Your task to perform on an android device: turn off notifications in google photos Image 0: 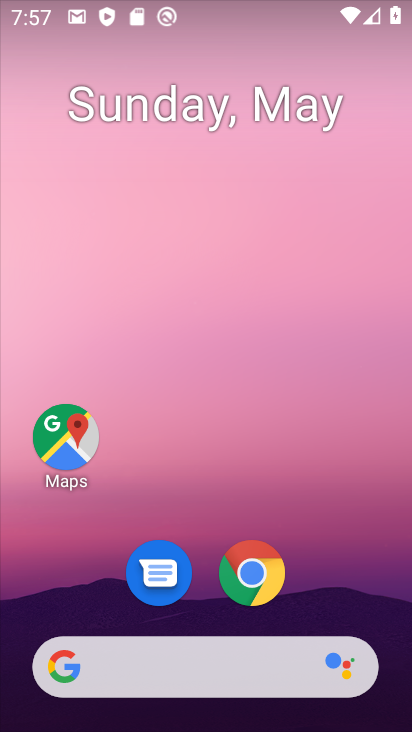
Step 0: drag from (206, 525) to (244, 0)
Your task to perform on an android device: turn off notifications in google photos Image 1: 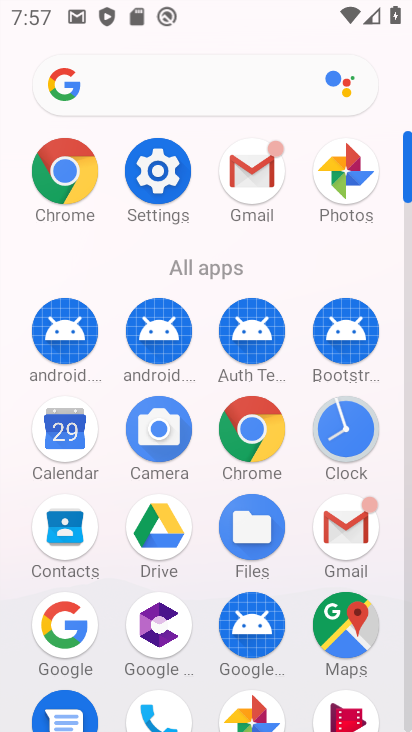
Step 1: click (167, 175)
Your task to perform on an android device: turn off notifications in google photos Image 2: 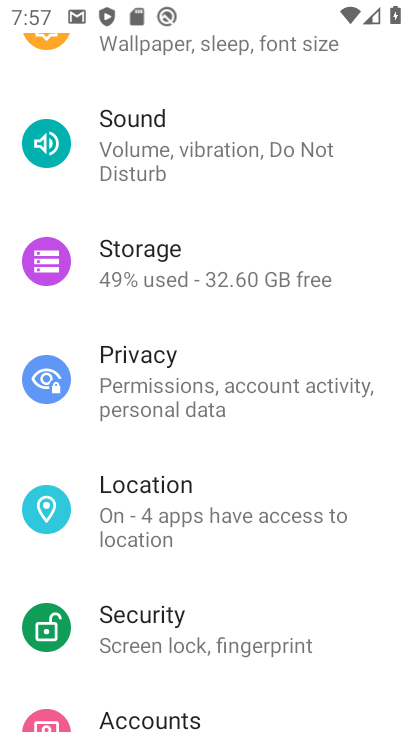
Step 2: drag from (242, 225) to (274, 709)
Your task to perform on an android device: turn off notifications in google photos Image 3: 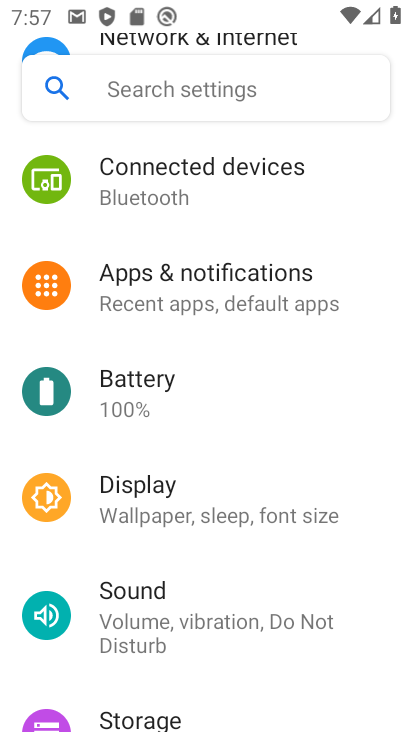
Step 3: click (250, 285)
Your task to perform on an android device: turn off notifications in google photos Image 4: 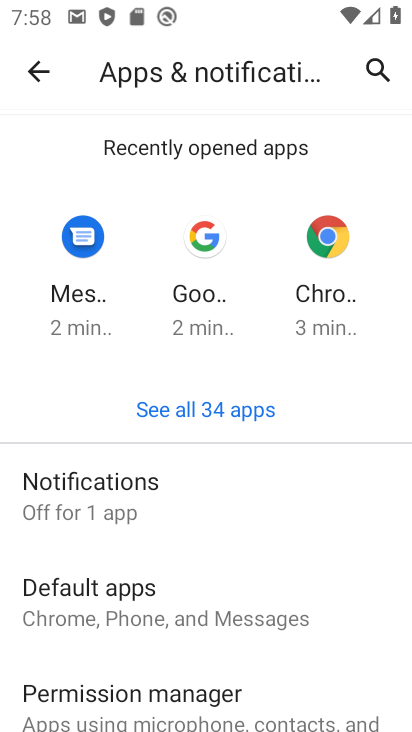
Step 4: click (235, 407)
Your task to perform on an android device: turn off notifications in google photos Image 5: 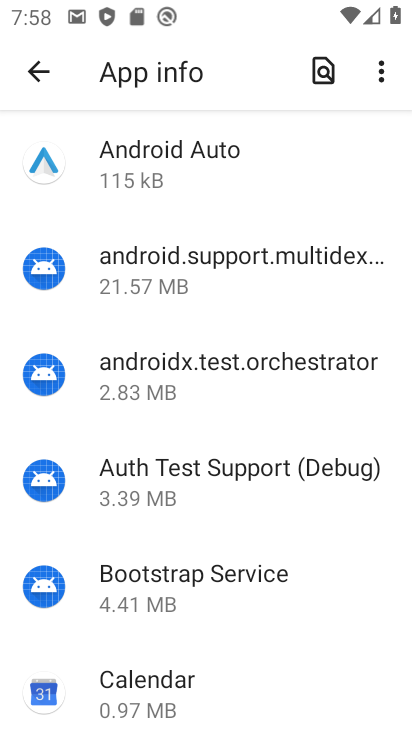
Step 5: drag from (263, 685) to (251, 10)
Your task to perform on an android device: turn off notifications in google photos Image 6: 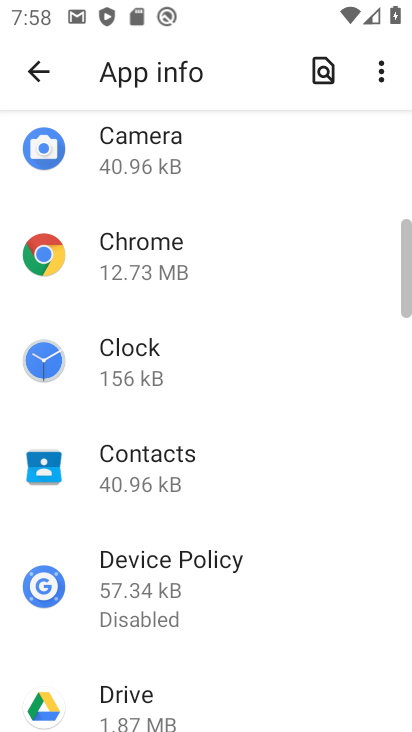
Step 6: drag from (268, 711) to (269, 5)
Your task to perform on an android device: turn off notifications in google photos Image 7: 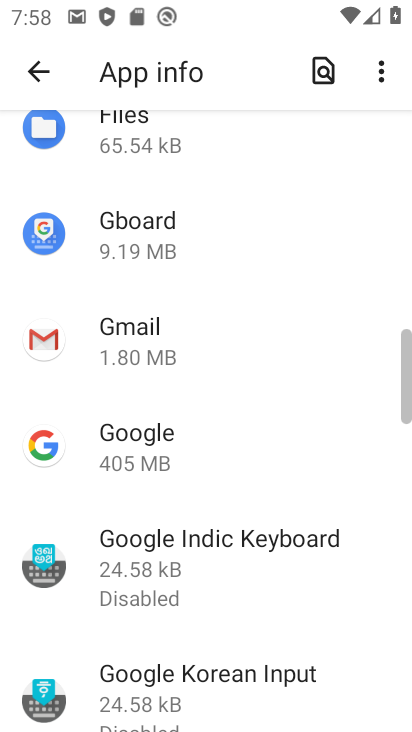
Step 7: drag from (263, 651) to (250, 104)
Your task to perform on an android device: turn off notifications in google photos Image 8: 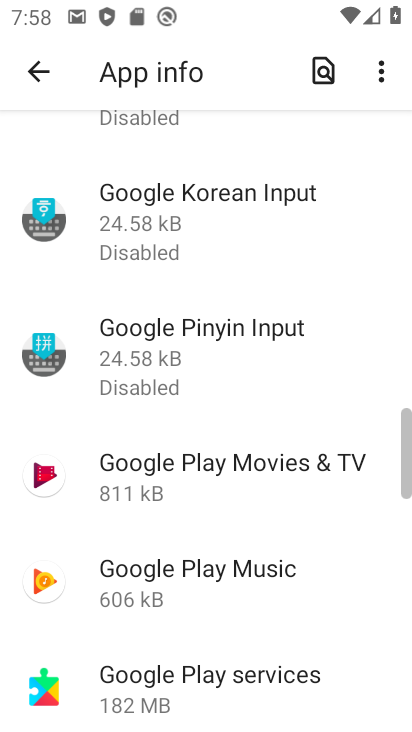
Step 8: drag from (244, 619) to (224, 139)
Your task to perform on an android device: turn off notifications in google photos Image 9: 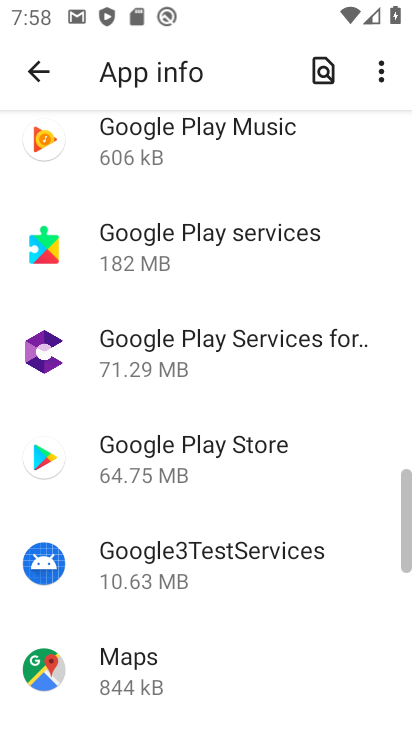
Step 9: drag from (231, 611) to (263, 212)
Your task to perform on an android device: turn off notifications in google photos Image 10: 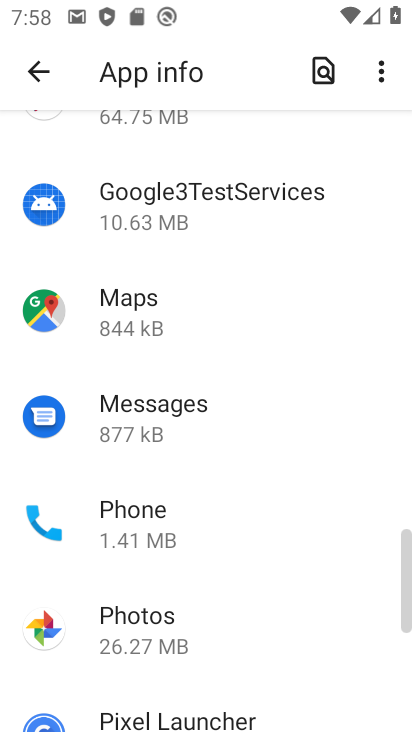
Step 10: click (155, 622)
Your task to perform on an android device: turn off notifications in google photos Image 11: 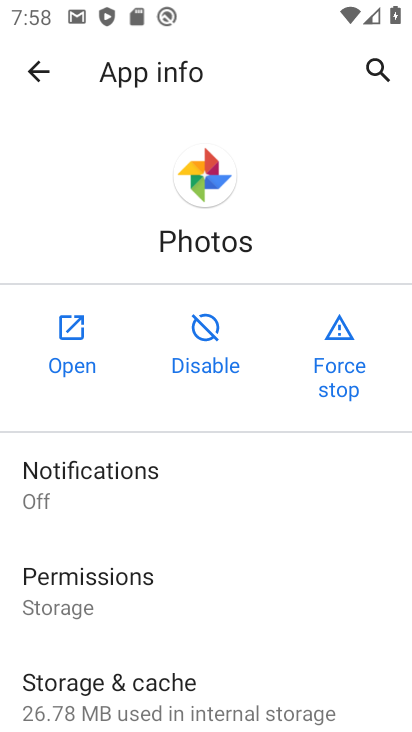
Step 11: task complete